Your task to perform on an android device: What is the recent news? Image 0: 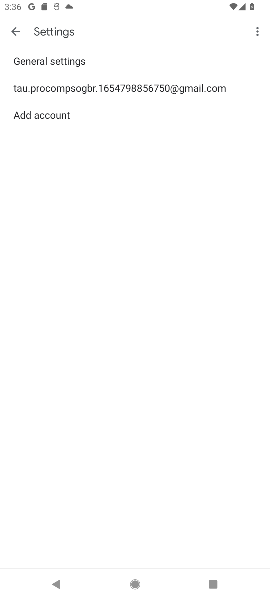
Step 0: click (9, 29)
Your task to perform on an android device: What is the recent news? Image 1: 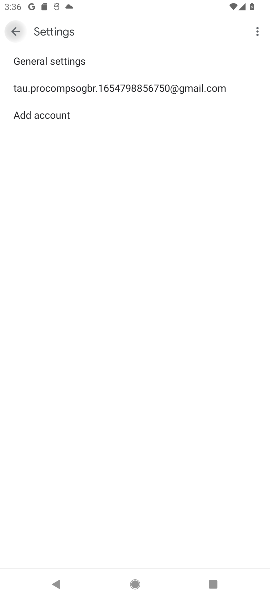
Step 1: click (9, 29)
Your task to perform on an android device: What is the recent news? Image 2: 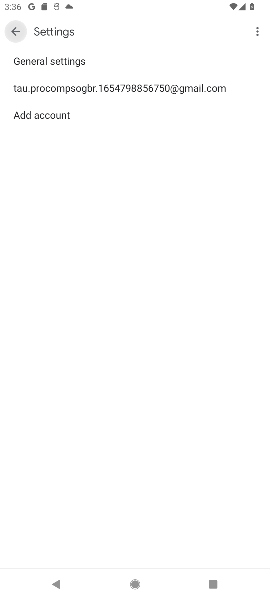
Step 2: click (9, 29)
Your task to perform on an android device: What is the recent news? Image 3: 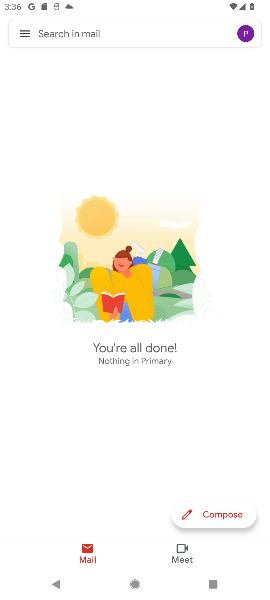
Step 3: press back button
Your task to perform on an android device: What is the recent news? Image 4: 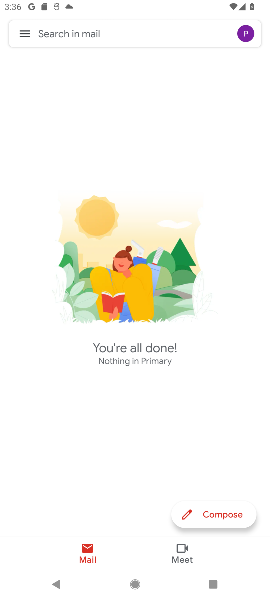
Step 4: press back button
Your task to perform on an android device: What is the recent news? Image 5: 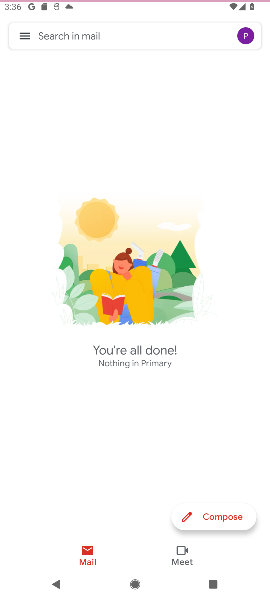
Step 5: press back button
Your task to perform on an android device: What is the recent news? Image 6: 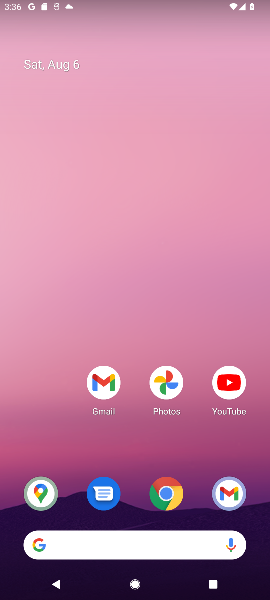
Step 6: drag from (192, 383) to (159, 130)
Your task to perform on an android device: What is the recent news? Image 7: 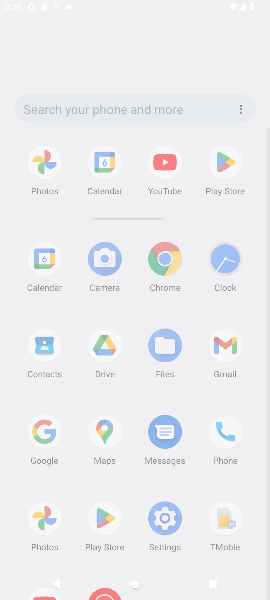
Step 7: drag from (121, 478) to (109, 198)
Your task to perform on an android device: What is the recent news? Image 8: 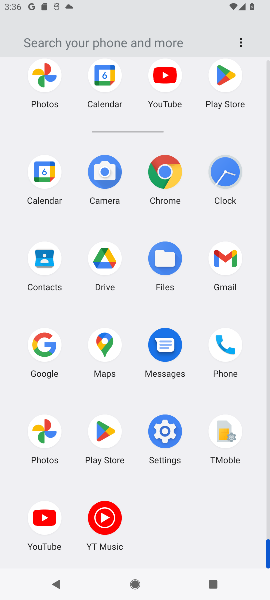
Step 8: click (165, 170)
Your task to perform on an android device: What is the recent news? Image 9: 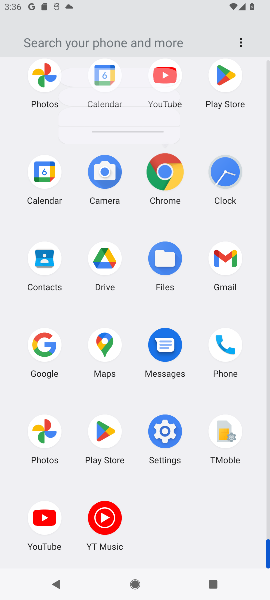
Step 9: click (165, 170)
Your task to perform on an android device: What is the recent news? Image 10: 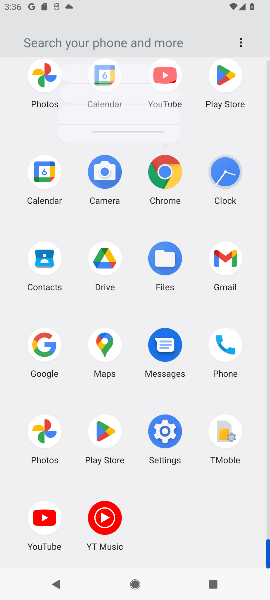
Step 10: click (164, 172)
Your task to perform on an android device: What is the recent news? Image 11: 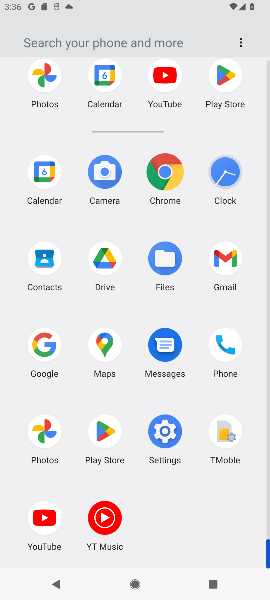
Step 11: click (164, 172)
Your task to perform on an android device: What is the recent news? Image 12: 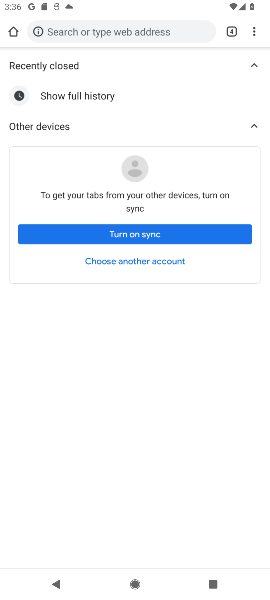
Step 12: click (164, 172)
Your task to perform on an android device: What is the recent news? Image 13: 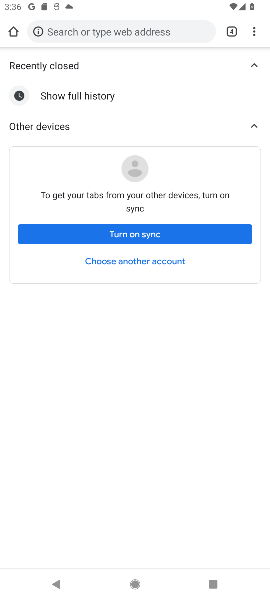
Step 13: drag from (251, 29) to (145, 468)
Your task to perform on an android device: What is the recent news? Image 14: 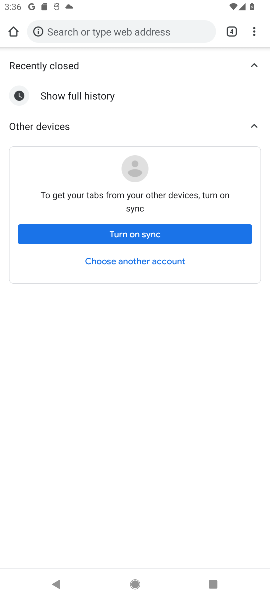
Step 14: click (156, 97)
Your task to perform on an android device: What is the recent news? Image 15: 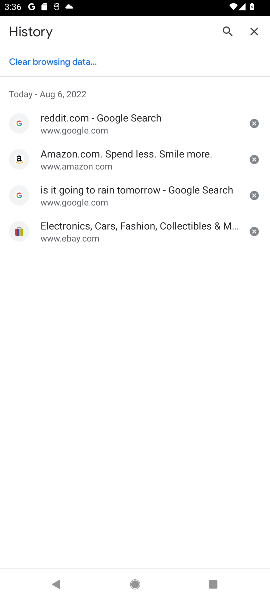
Step 15: click (251, 25)
Your task to perform on an android device: What is the recent news? Image 16: 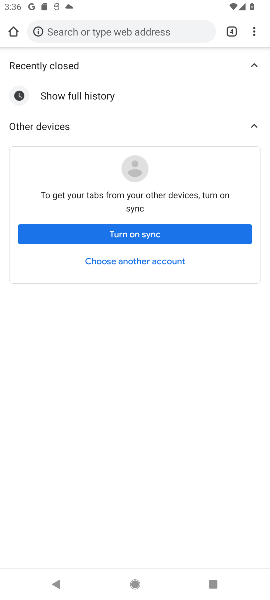
Step 16: drag from (253, 33) to (174, 94)
Your task to perform on an android device: What is the recent news? Image 17: 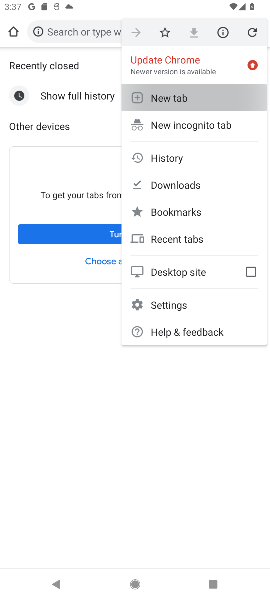
Step 17: click (174, 94)
Your task to perform on an android device: What is the recent news? Image 18: 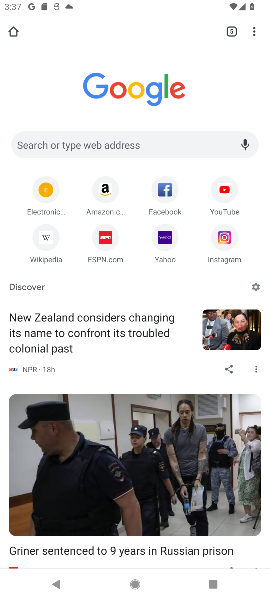
Step 18: task complete